Your task to perform on an android device: open chrome privacy settings Image 0: 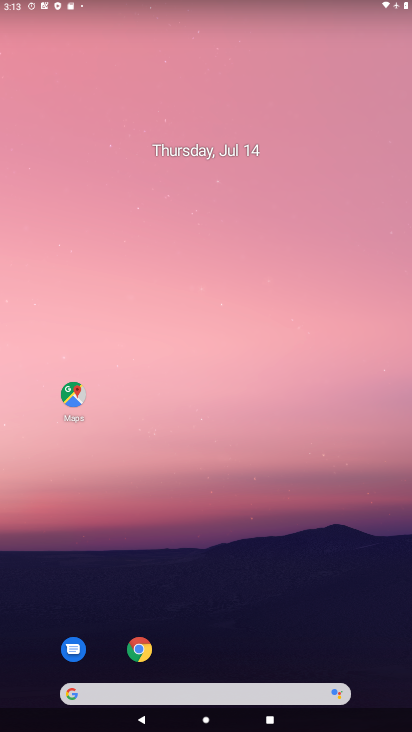
Step 0: click (138, 656)
Your task to perform on an android device: open chrome privacy settings Image 1: 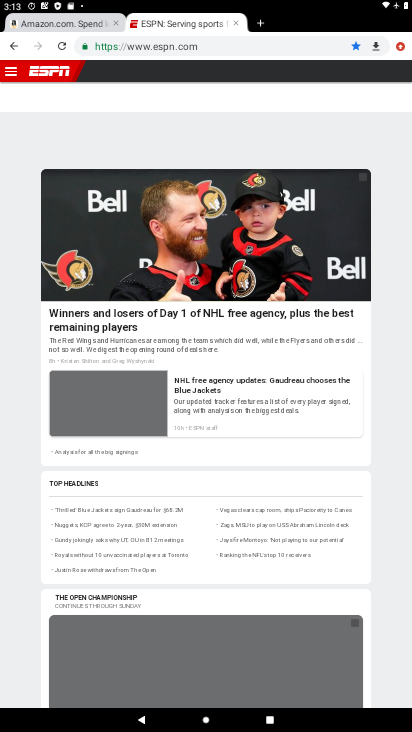
Step 1: click (400, 48)
Your task to perform on an android device: open chrome privacy settings Image 2: 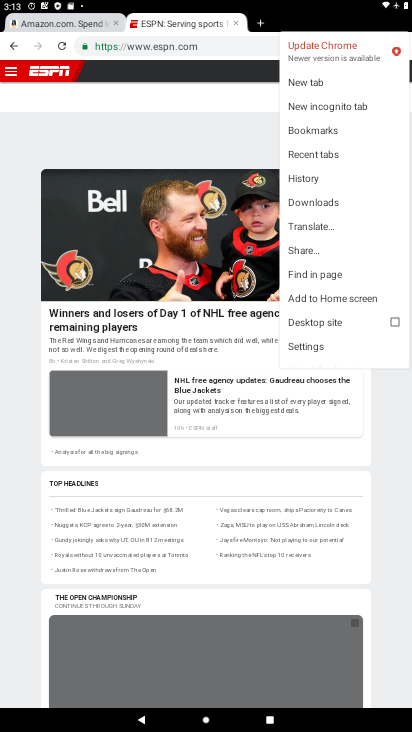
Step 2: click (313, 351)
Your task to perform on an android device: open chrome privacy settings Image 3: 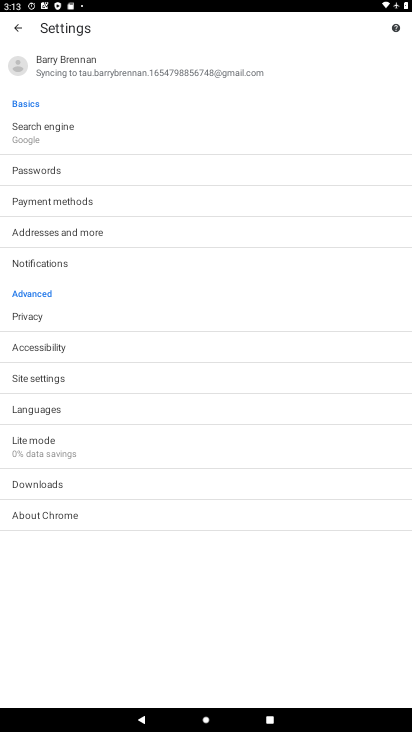
Step 3: click (61, 321)
Your task to perform on an android device: open chrome privacy settings Image 4: 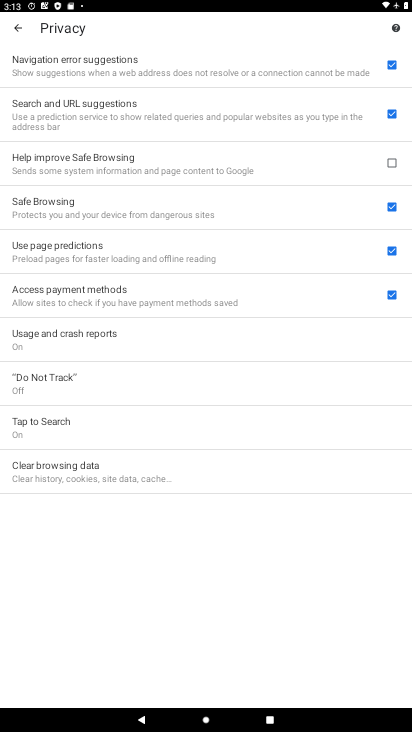
Step 4: task complete